Your task to perform on an android device: find which apps use the phone's location Image 0: 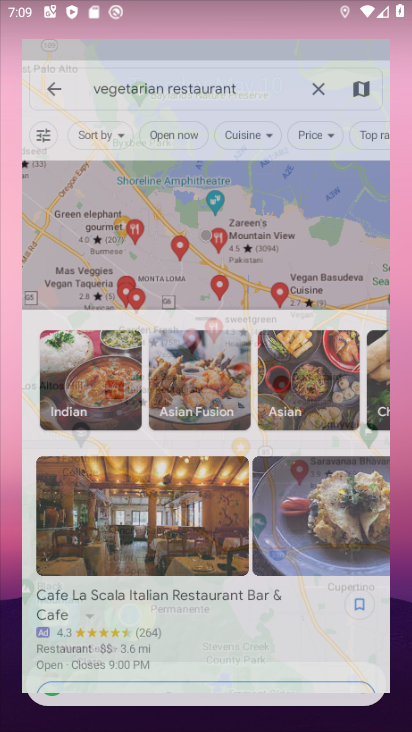
Step 0: drag from (257, 552) to (164, 101)
Your task to perform on an android device: find which apps use the phone's location Image 1: 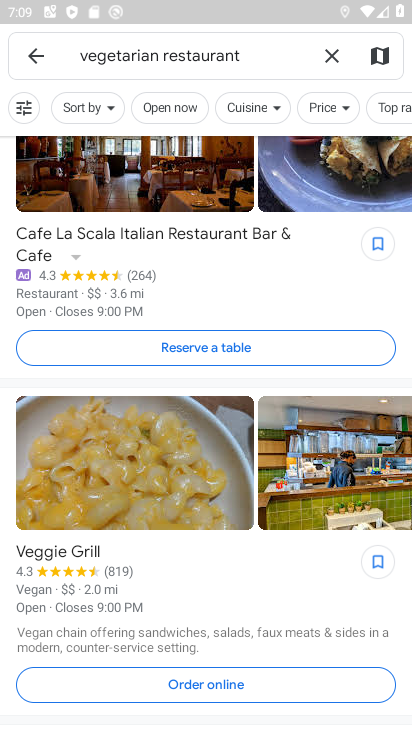
Step 1: press home button
Your task to perform on an android device: find which apps use the phone's location Image 2: 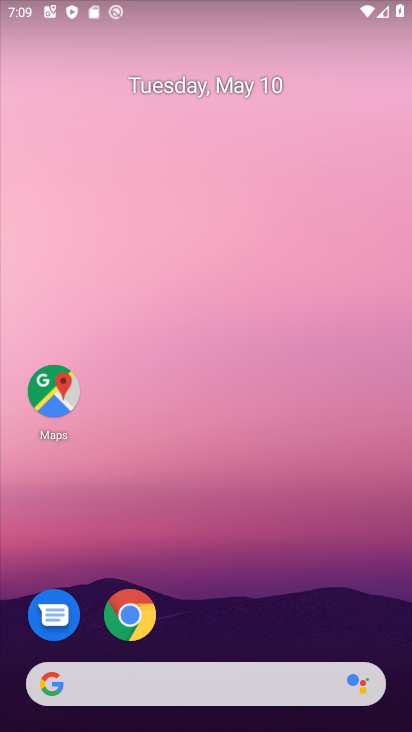
Step 2: drag from (220, 574) to (103, 119)
Your task to perform on an android device: find which apps use the phone's location Image 3: 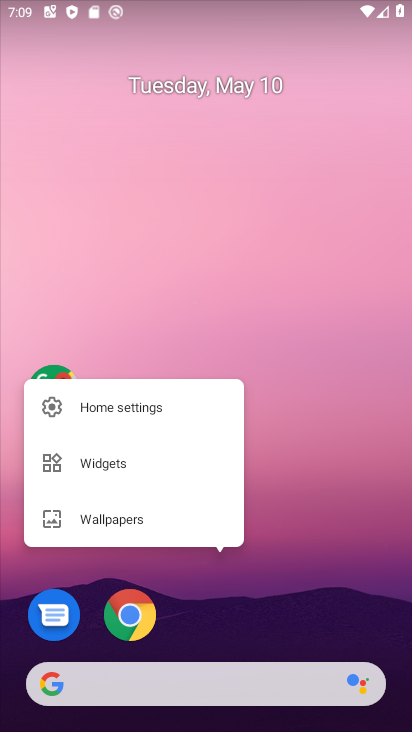
Step 3: click (314, 342)
Your task to perform on an android device: find which apps use the phone's location Image 4: 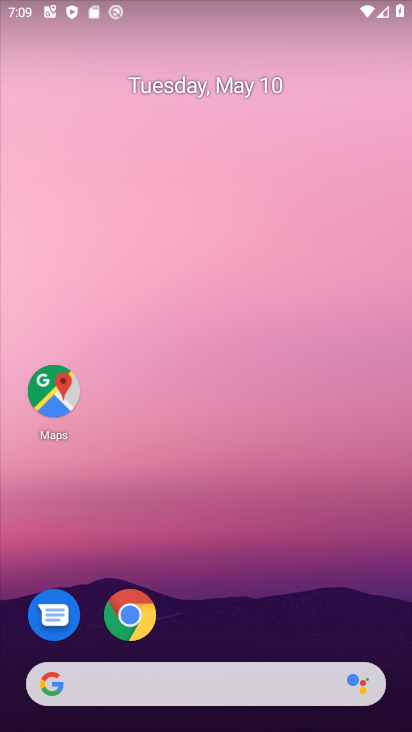
Step 4: drag from (239, 509) to (221, 190)
Your task to perform on an android device: find which apps use the phone's location Image 5: 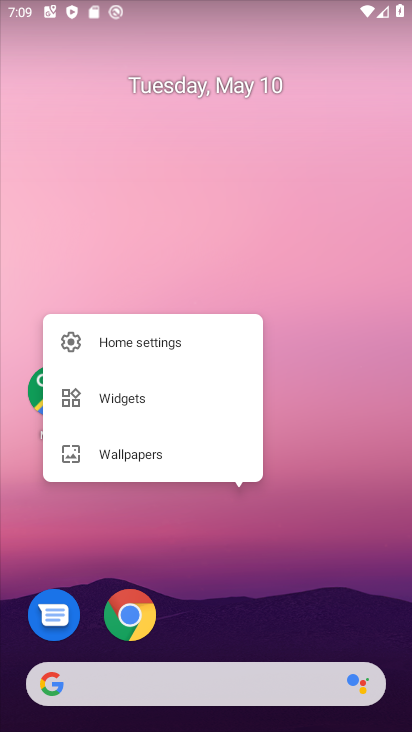
Step 5: click (356, 402)
Your task to perform on an android device: find which apps use the phone's location Image 6: 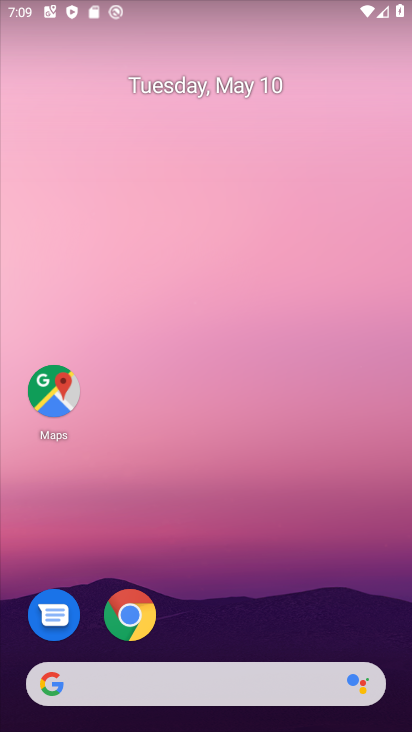
Step 6: drag from (343, 570) to (240, 27)
Your task to perform on an android device: find which apps use the phone's location Image 7: 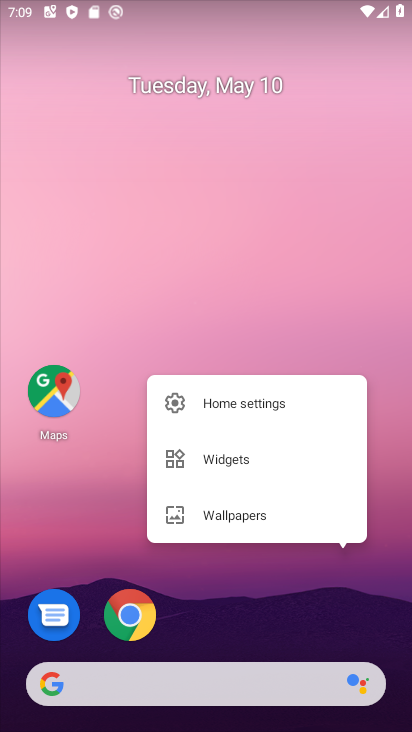
Step 7: click (113, 501)
Your task to perform on an android device: find which apps use the phone's location Image 8: 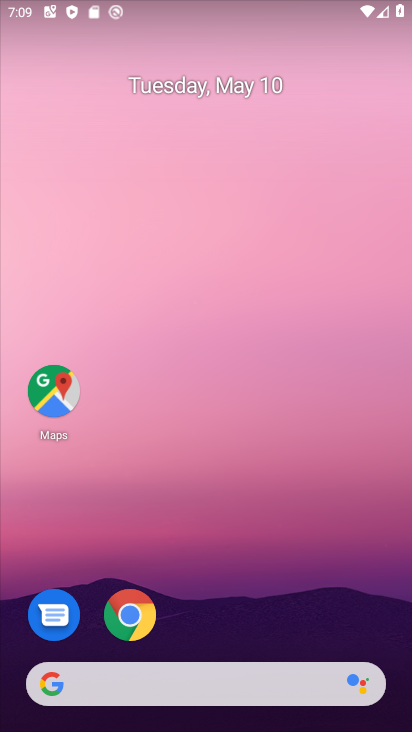
Step 8: drag from (232, 481) to (128, 1)
Your task to perform on an android device: find which apps use the phone's location Image 9: 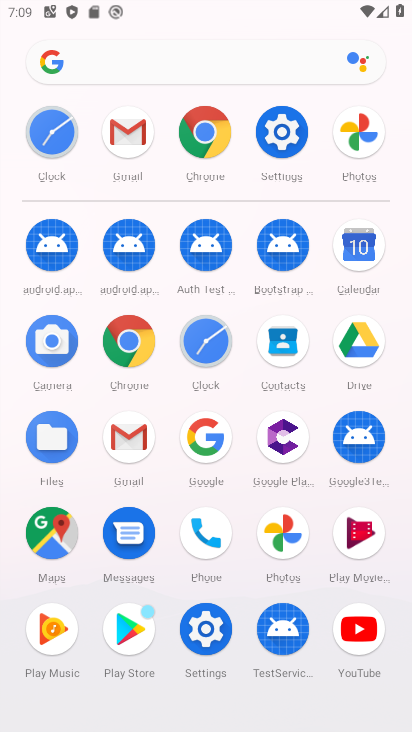
Step 9: click (273, 123)
Your task to perform on an android device: find which apps use the phone's location Image 10: 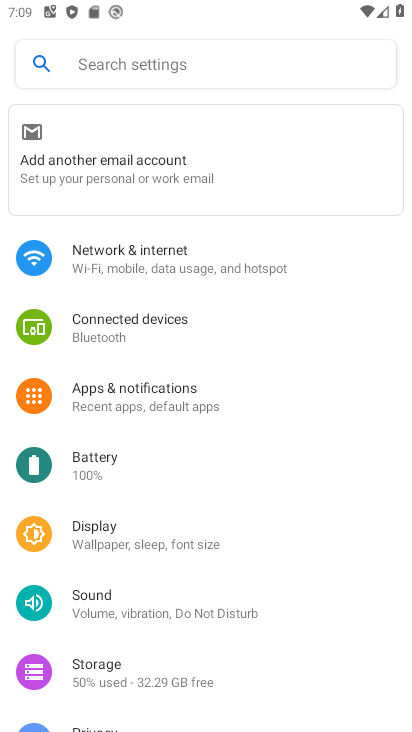
Step 10: drag from (240, 571) to (217, 367)
Your task to perform on an android device: find which apps use the phone's location Image 11: 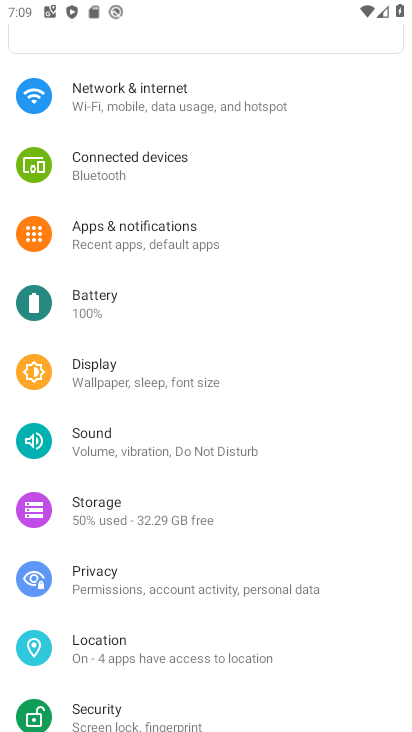
Step 11: click (92, 640)
Your task to perform on an android device: find which apps use the phone's location Image 12: 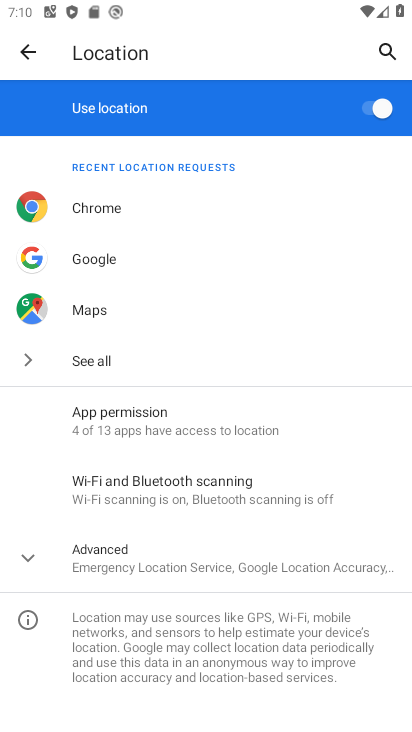
Step 12: click (87, 351)
Your task to perform on an android device: find which apps use the phone's location Image 13: 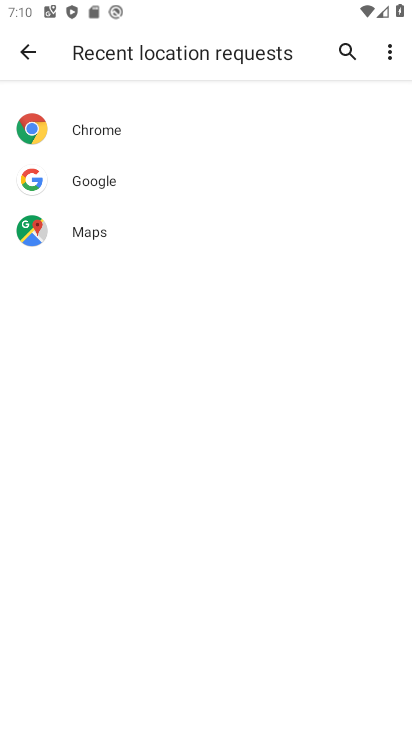
Step 13: task complete